Your task to perform on an android device: Open CNN.com Image 0: 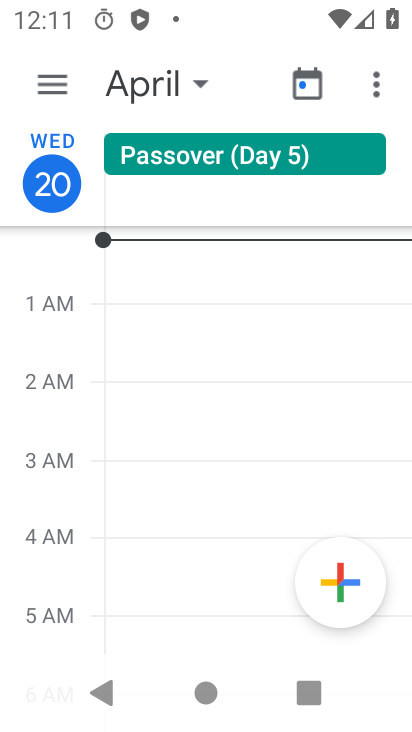
Step 0: press back button
Your task to perform on an android device: Open CNN.com Image 1: 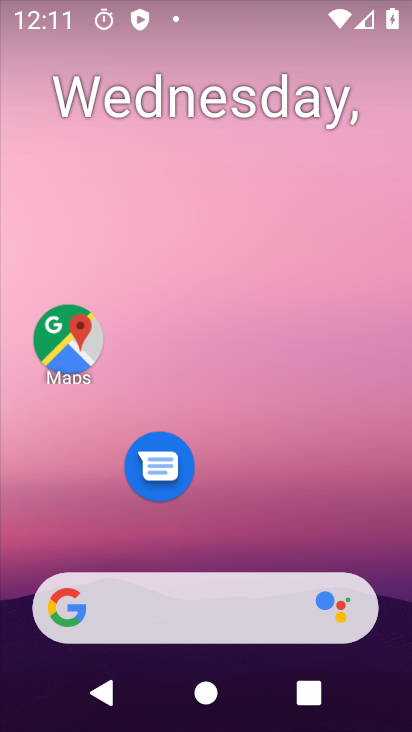
Step 1: drag from (257, 524) to (193, 79)
Your task to perform on an android device: Open CNN.com Image 2: 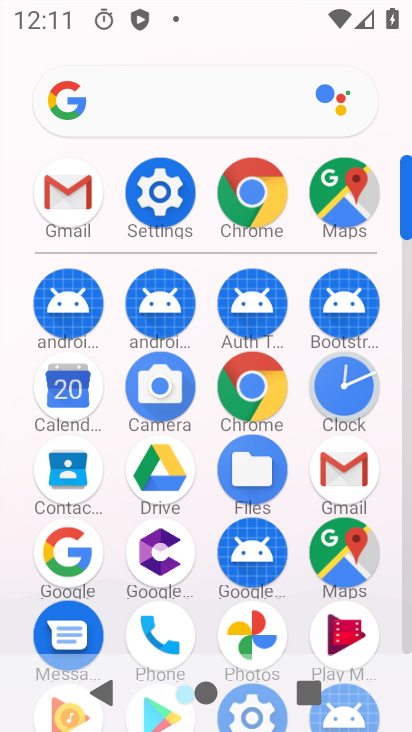
Step 2: click (267, 190)
Your task to perform on an android device: Open CNN.com Image 3: 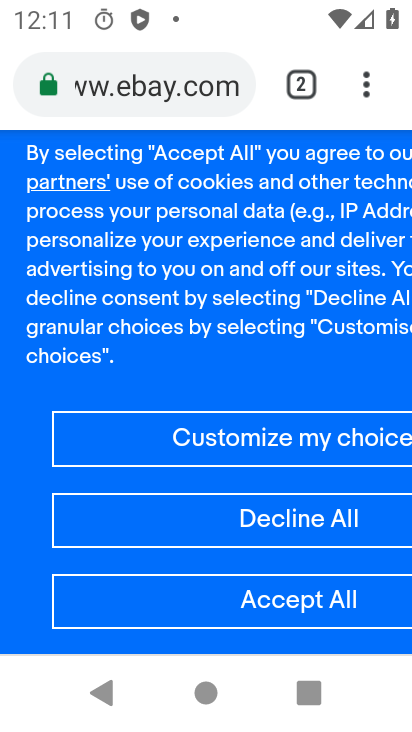
Step 3: click (211, 97)
Your task to perform on an android device: Open CNN.com Image 4: 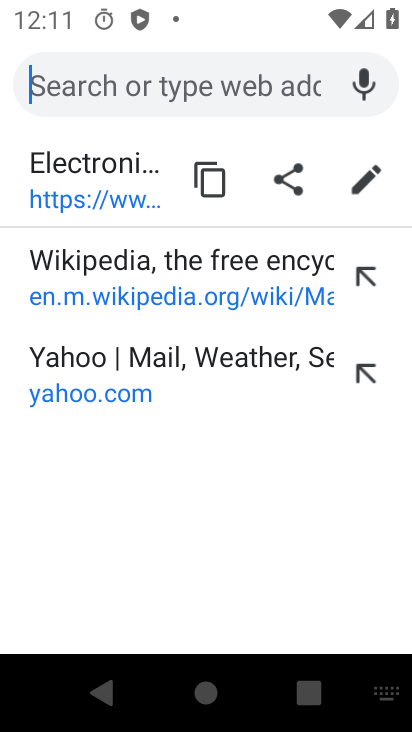
Step 4: type "cnn"
Your task to perform on an android device: Open CNN.com Image 5: 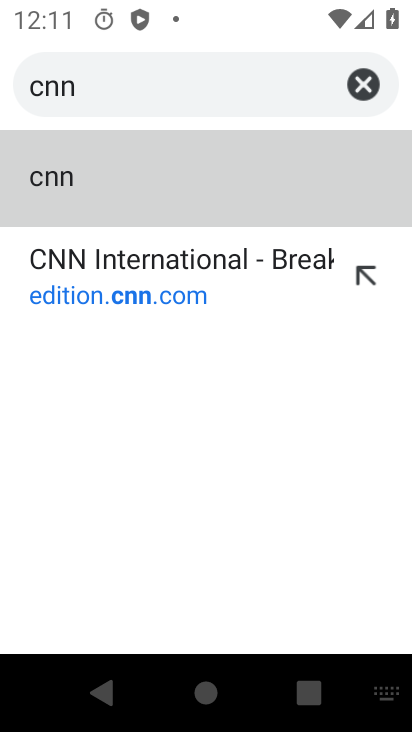
Step 5: click (114, 268)
Your task to perform on an android device: Open CNN.com Image 6: 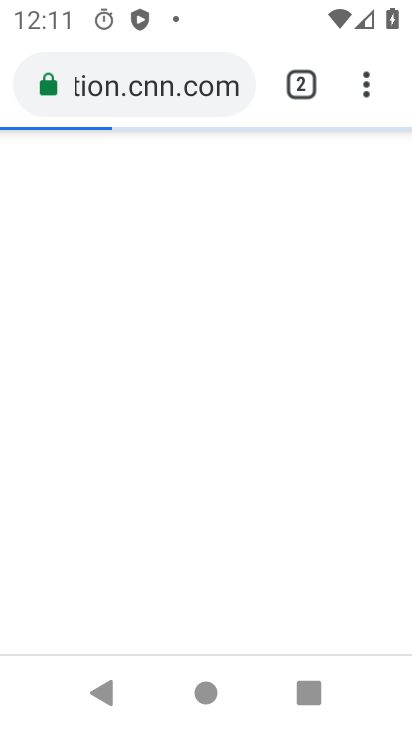
Step 6: task complete